Your task to perform on an android device: turn on the 24-hour format for clock Image 0: 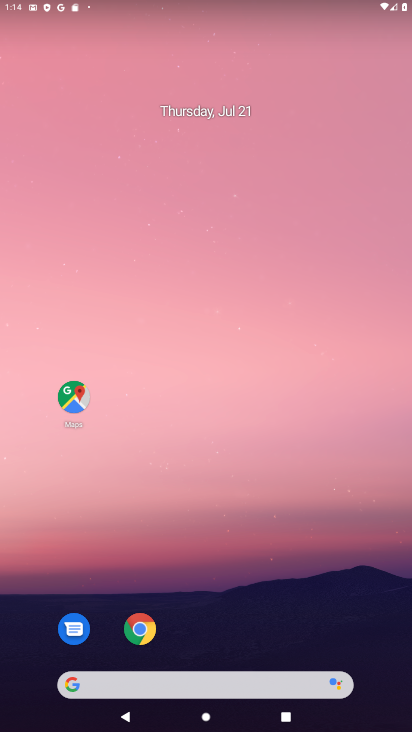
Step 0: drag from (194, 637) to (225, 119)
Your task to perform on an android device: turn on the 24-hour format for clock Image 1: 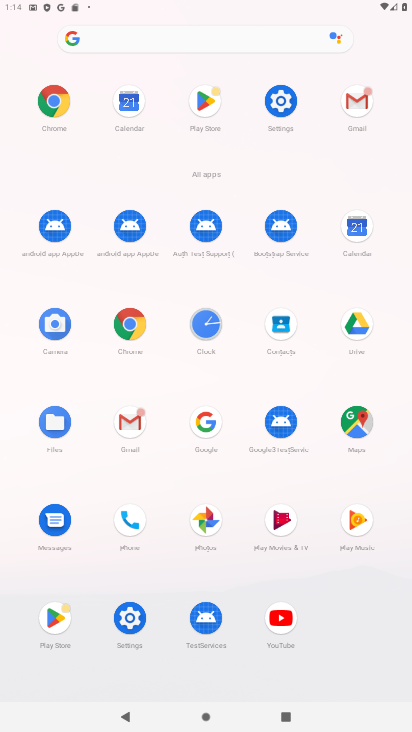
Step 1: click (203, 323)
Your task to perform on an android device: turn on the 24-hour format for clock Image 2: 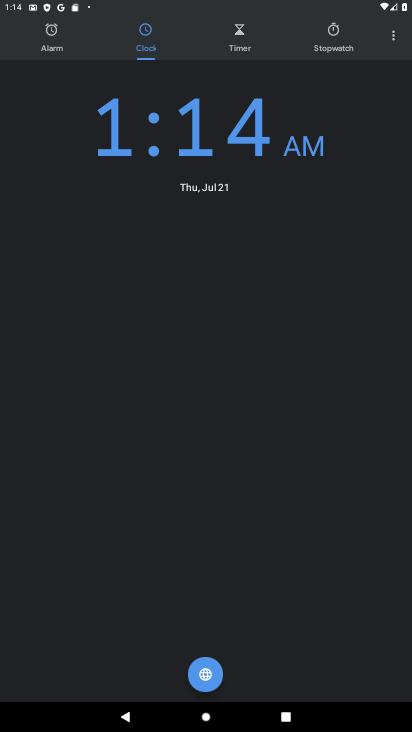
Step 2: click (388, 37)
Your task to perform on an android device: turn on the 24-hour format for clock Image 3: 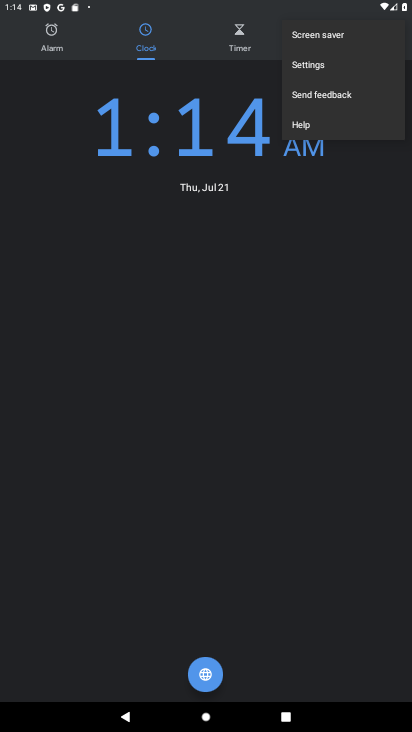
Step 3: click (308, 63)
Your task to perform on an android device: turn on the 24-hour format for clock Image 4: 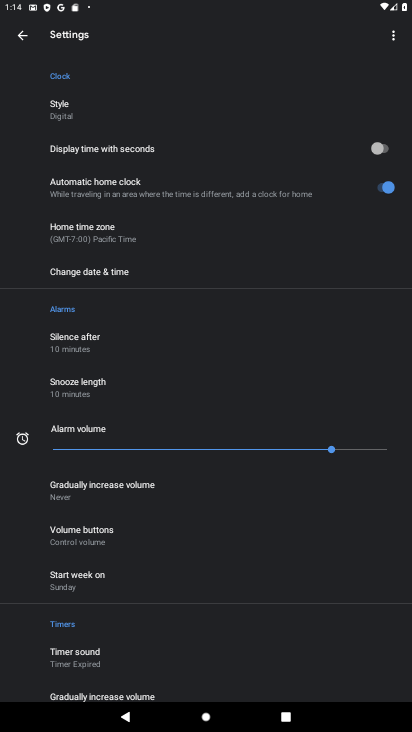
Step 4: click (96, 275)
Your task to perform on an android device: turn on the 24-hour format for clock Image 5: 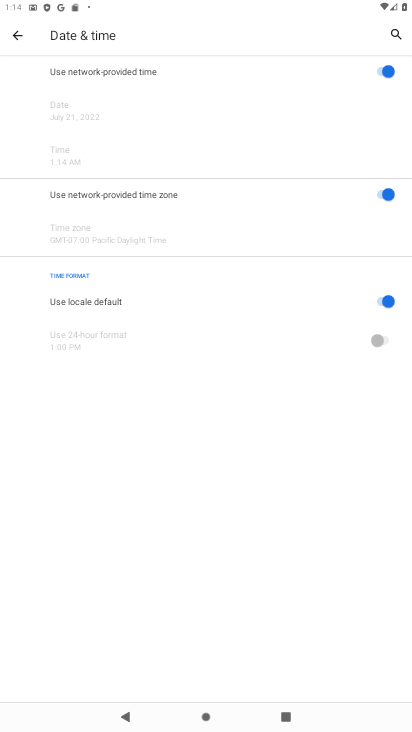
Step 5: click (384, 305)
Your task to perform on an android device: turn on the 24-hour format for clock Image 6: 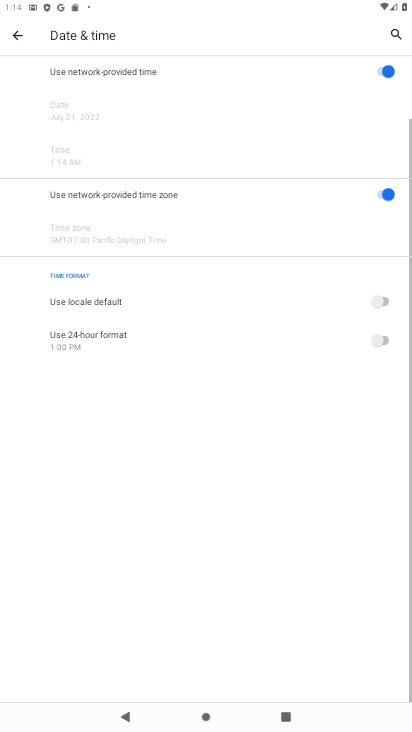
Step 6: click (379, 338)
Your task to perform on an android device: turn on the 24-hour format for clock Image 7: 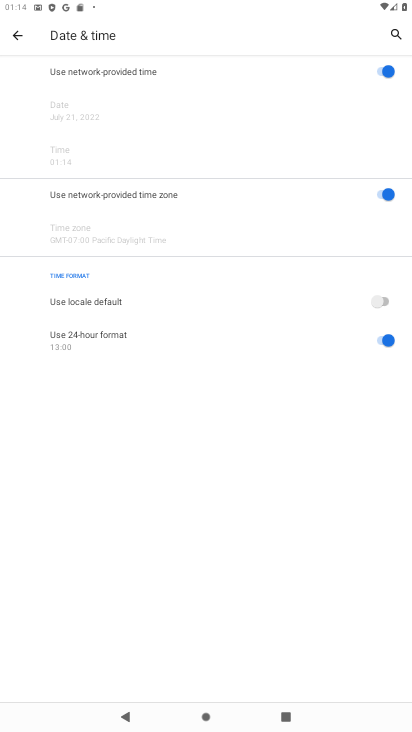
Step 7: task complete